Your task to perform on an android device: Find coffee shops on Maps Image 0: 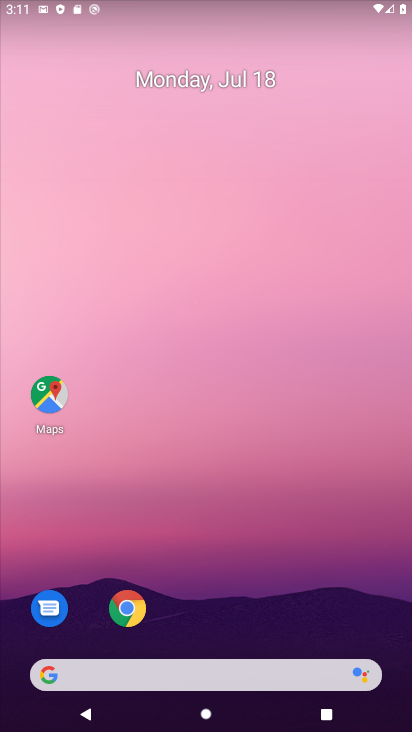
Step 0: drag from (174, 623) to (320, 152)
Your task to perform on an android device: Find coffee shops on Maps Image 1: 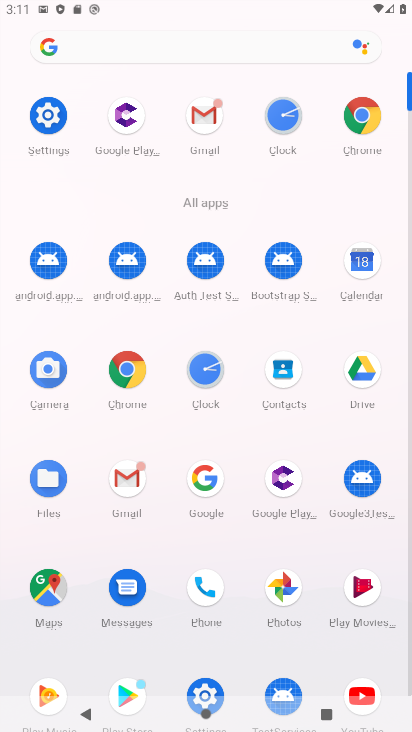
Step 1: click (52, 597)
Your task to perform on an android device: Find coffee shops on Maps Image 2: 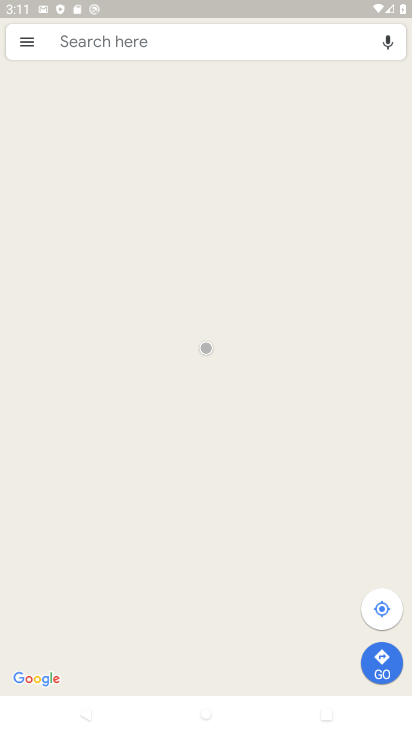
Step 2: click (238, 48)
Your task to perform on an android device: Find coffee shops on Maps Image 3: 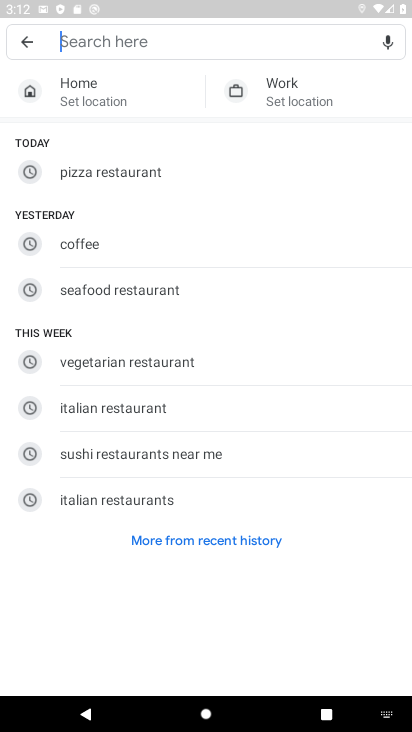
Step 3: type "coffee shops"
Your task to perform on an android device: Find coffee shops on Maps Image 4: 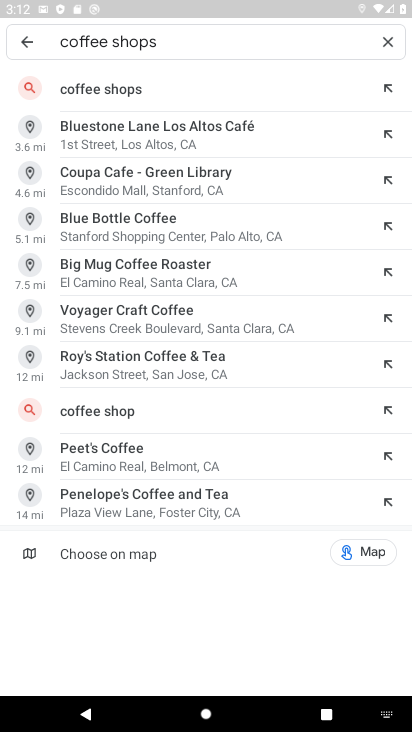
Step 4: click (86, 90)
Your task to perform on an android device: Find coffee shops on Maps Image 5: 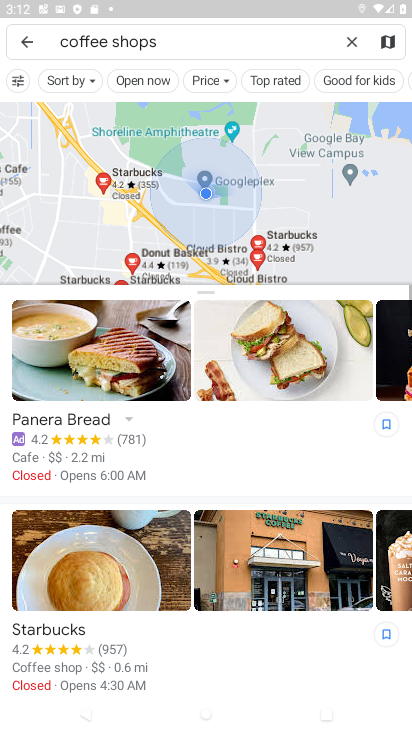
Step 5: task complete